Your task to perform on an android device: see sites visited before in the chrome app Image 0: 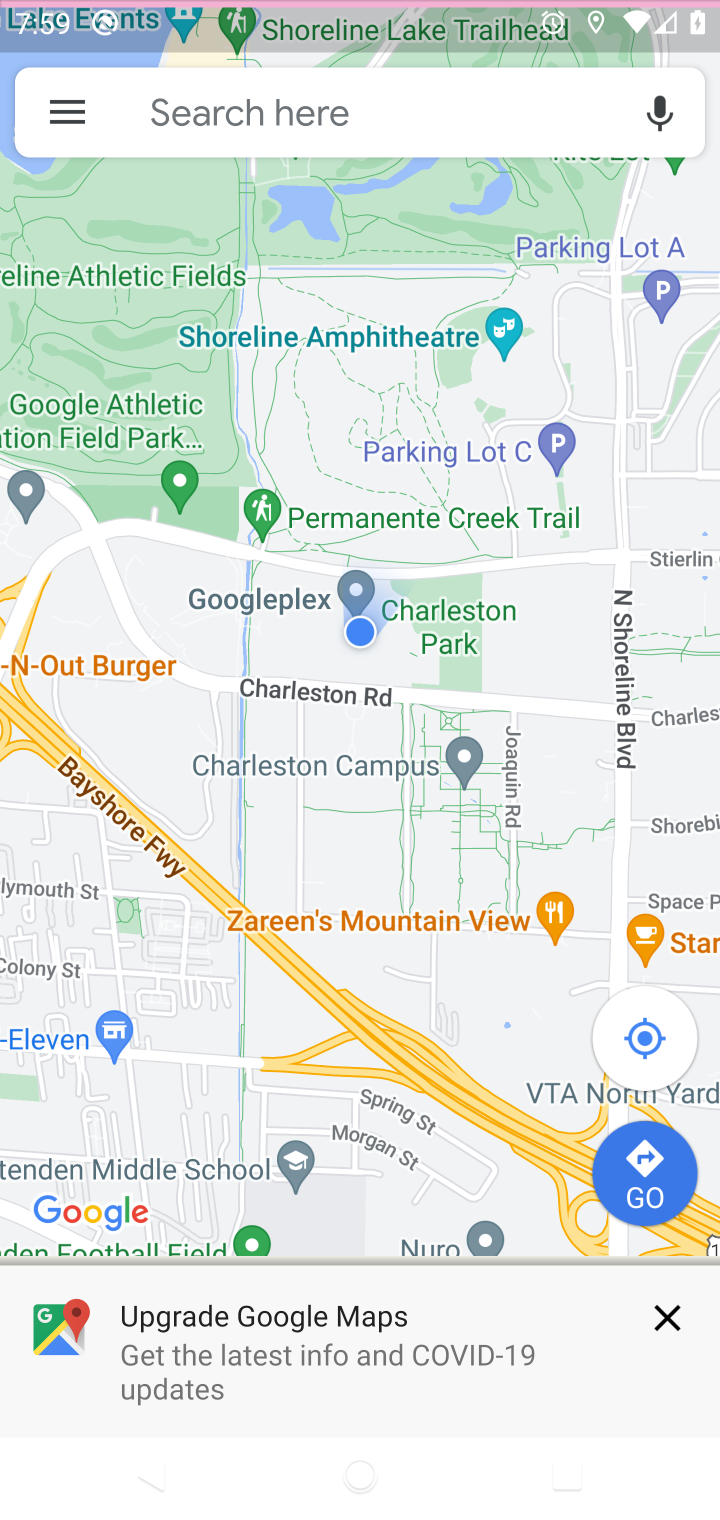
Step 0: click (468, 334)
Your task to perform on an android device: see sites visited before in the chrome app Image 1: 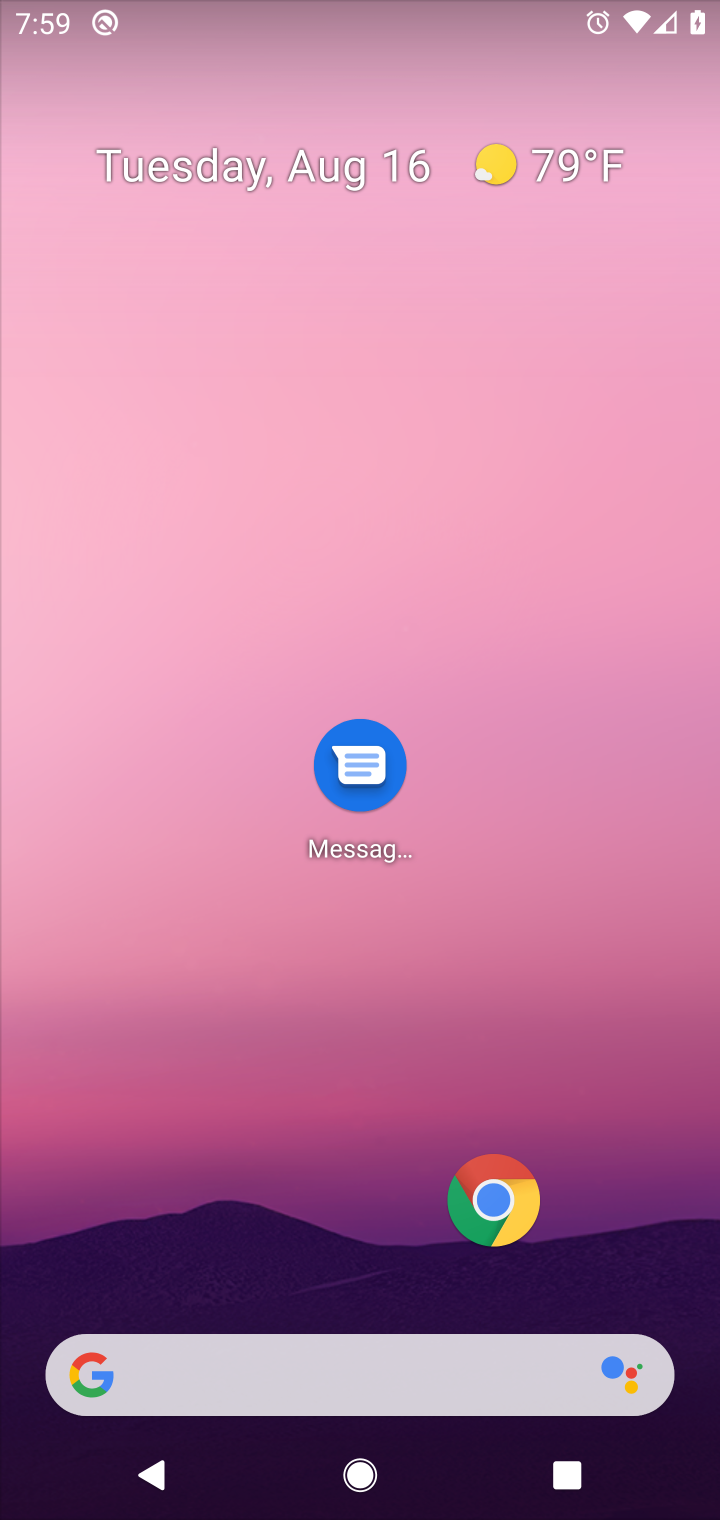
Step 1: drag from (39, 1468) to (341, 429)
Your task to perform on an android device: see sites visited before in the chrome app Image 2: 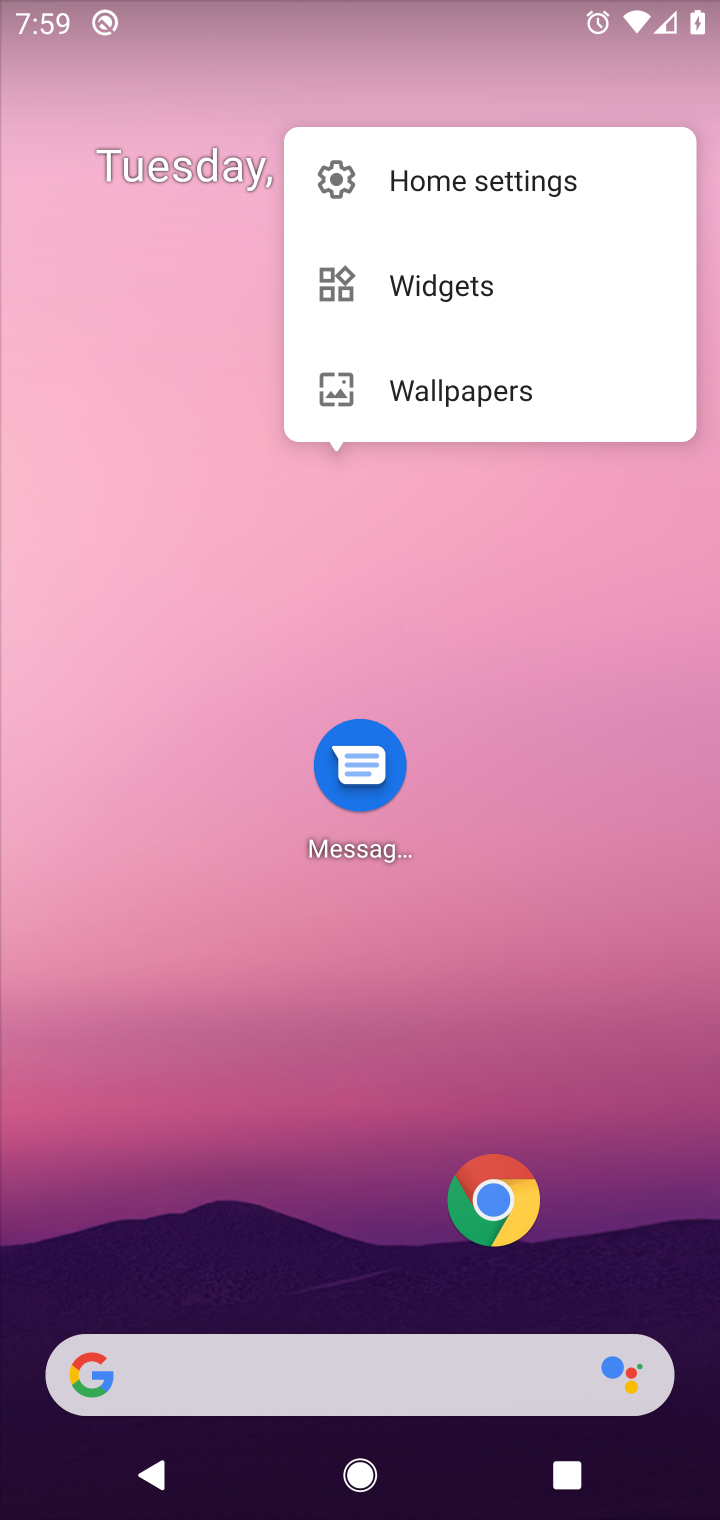
Step 2: drag from (27, 1463) to (216, 343)
Your task to perform on an android device: see sites visited before in the chrome app Image 3: 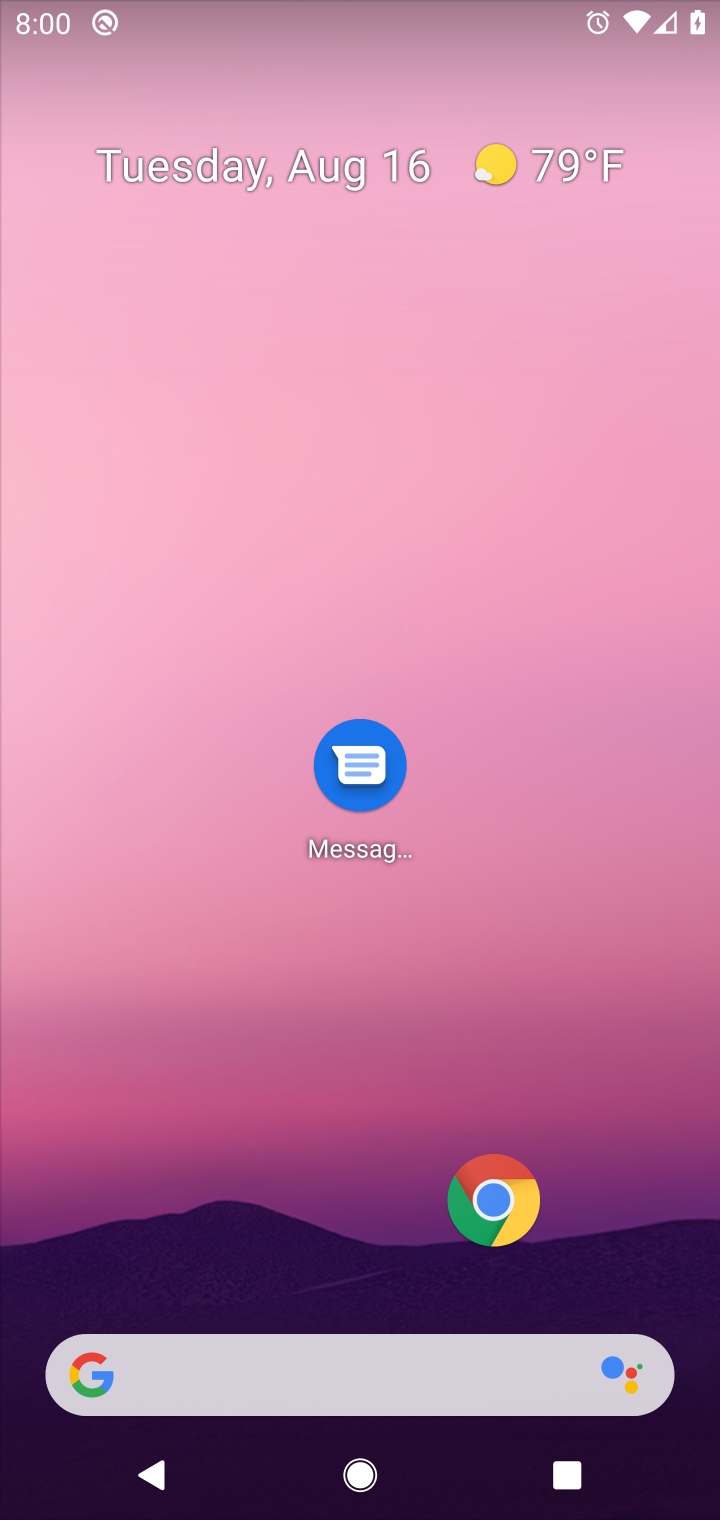
Step 3: click (489, 1192)
Your task to perform on an android device: see sites visited before in the chrome app Image 4: 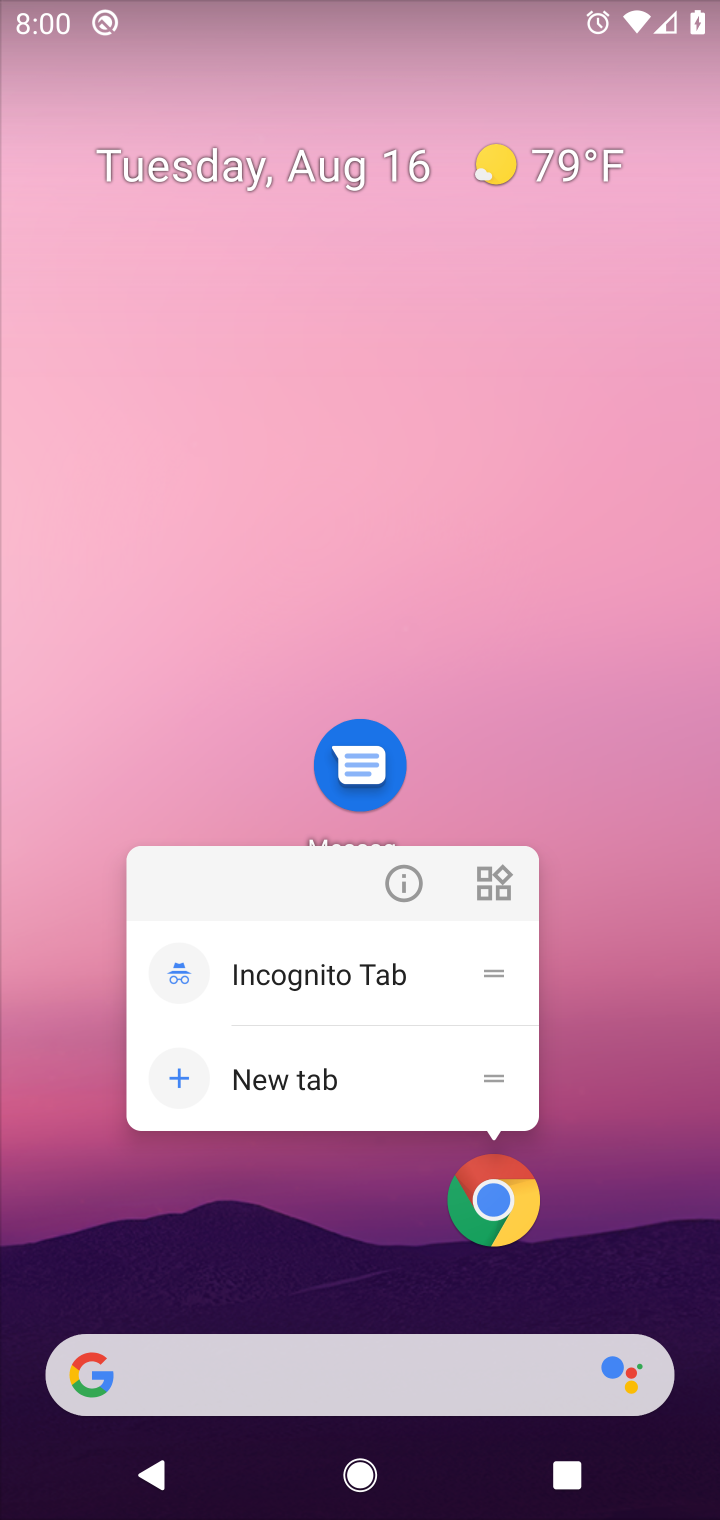
Step 4: task complete